Your task to perform on an android device: Go to calendar. Show me events next week Image 0: 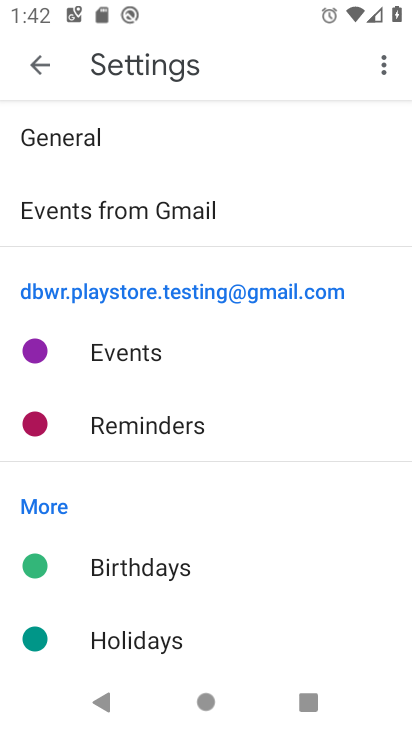
Step 0: press home button
Your task to perform on an android device: Go to calendar. Show me events next week Image 1: 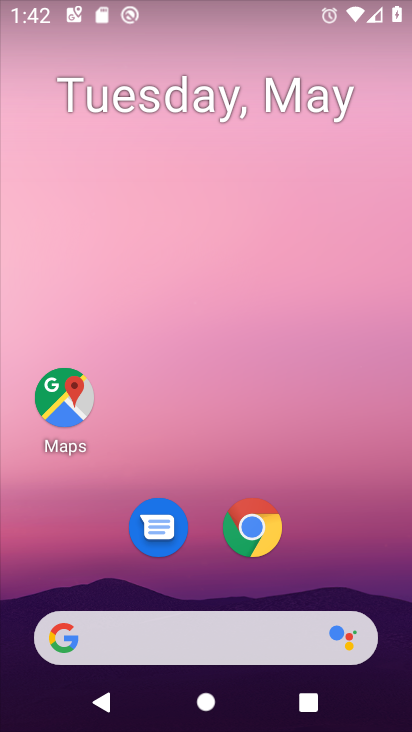
Step 1: drag from (255, 712) to (302, 91)
Your task to perform on an android device: Go to calendar. Show me events next week Image 2: 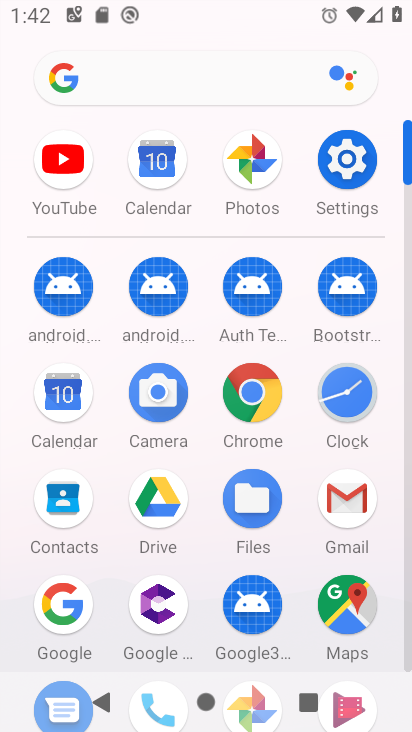
Step 2: click (42, 411)
Your task to perform on an android device: Go to calendar. Show me events next week Image 3: 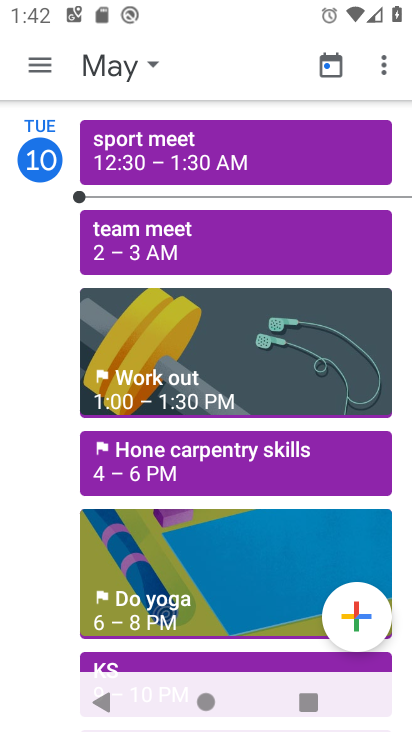
Step 3: click (113, 71)
Your task to perform on an android device: Go to calendar. Show me events next week Image 4: 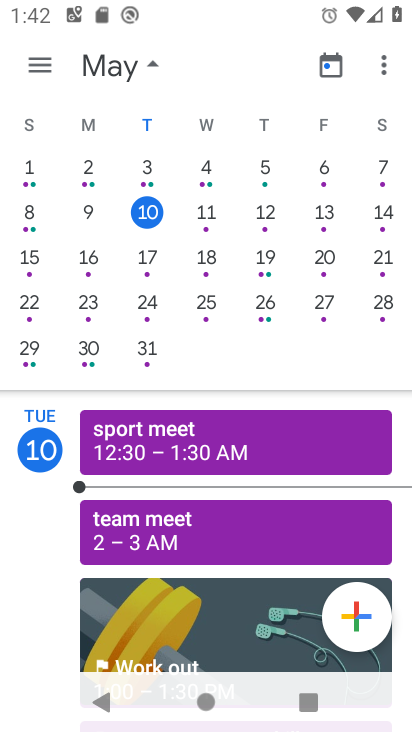
Step 4: click (36, 264)
Your task to perform on an android device: Go to calendar. Show me events next week Image 5: 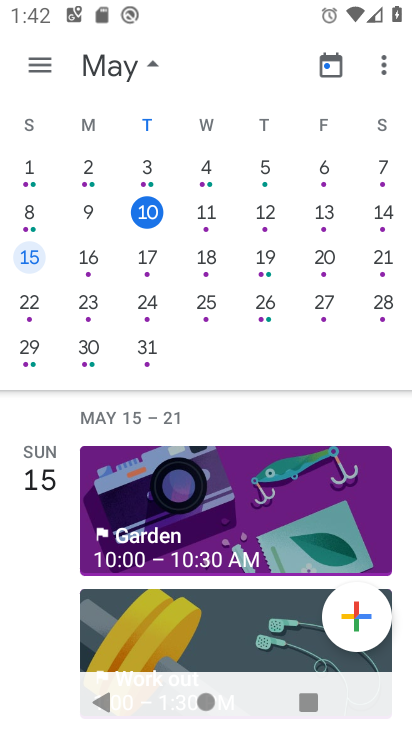
Step 5: task complete